Your task to perform on an android device: turn on data saver in the chrome app Image 0: 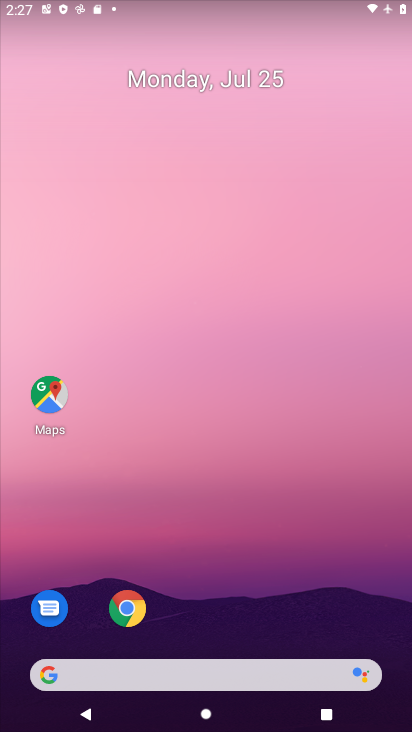
Step 0: drag from (244, 614) to (346, 209)
Your task to perform on an android device: turn on data saver in the chrome app Image 1: 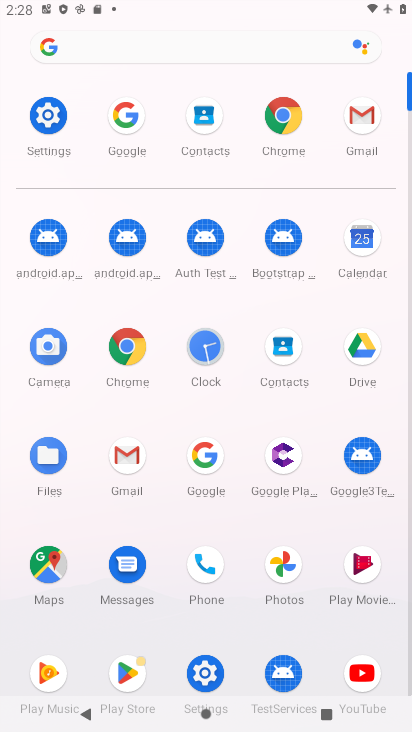
Step 1: click (279, 136)
Your task to perform on an android device: turn on data saver in the chrome app Image 2: 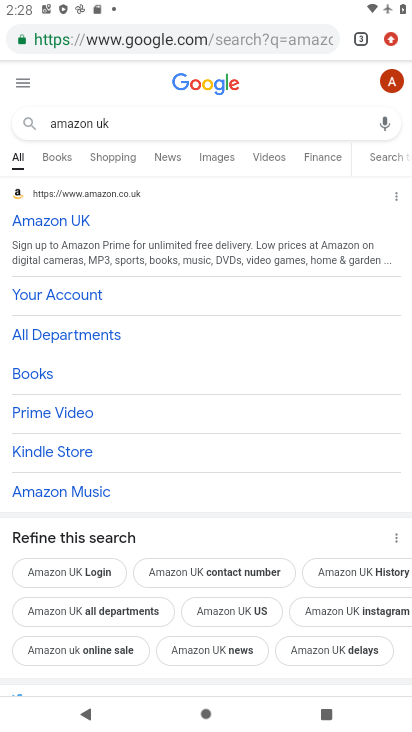
Step 2: click (393, 46)
Your task to perform on an android device: turn on data saver in the chrome app Image 3: 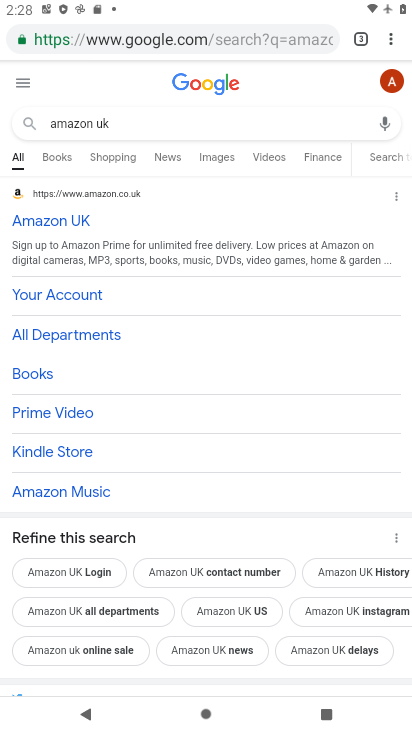
Step 3: click (393, 44)
Your task to perform on an android device: turn on data saver in the chrome app Image 4: 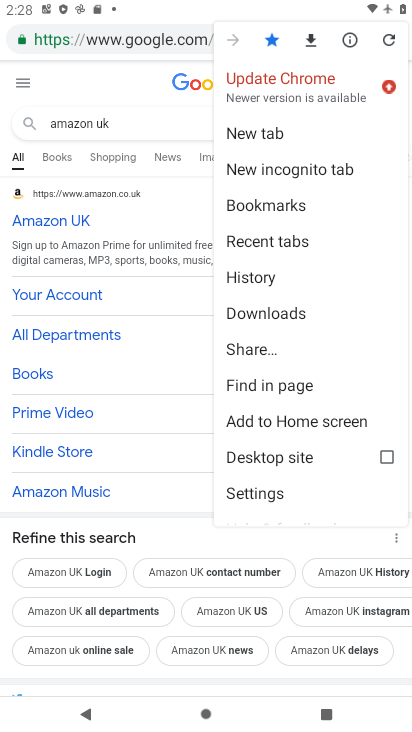
Step 4: click (261, 498)
Your task to perform on an android device: turn on data saver in the chrome app Image 5: 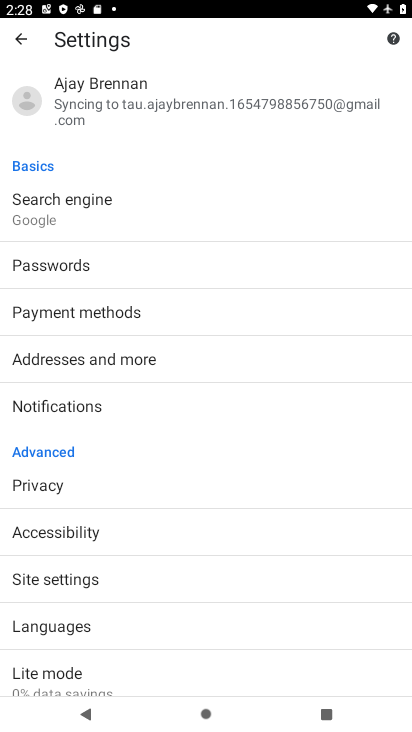
Step 5: drag from (172, 552) to (218, 280)
Your task to perform on an android device: turn on data saver in the chrome app Image 6: 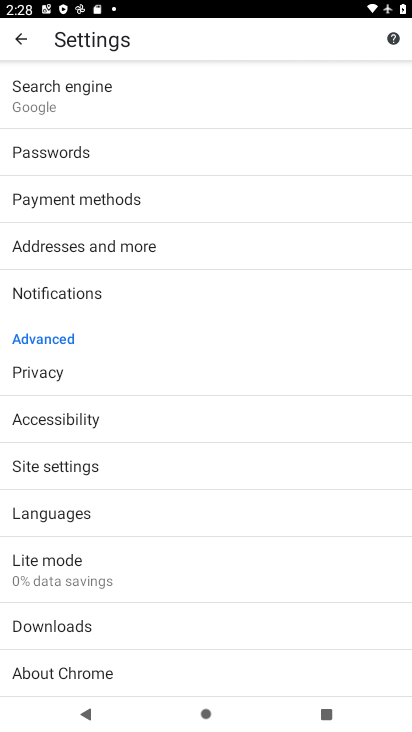
Step 6: click (69, 576)
Your task to perform on an android device: turn on data saver in the chrome app Image 7: 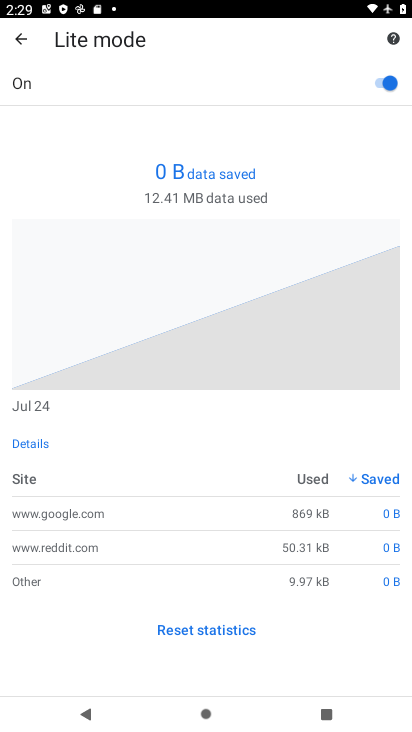
Step 7: task complete